Your task to perform on an android device: turn on location history Image 0: 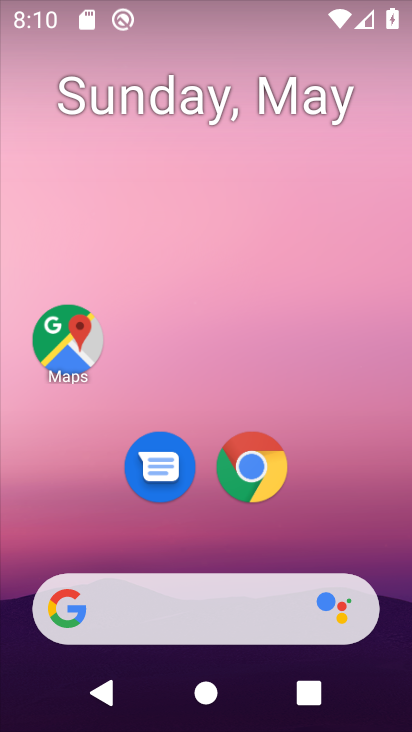
Step 0: drag from (358, 520) to (332, 47)
Your task to perform on an android device: turn on location history Image 1: 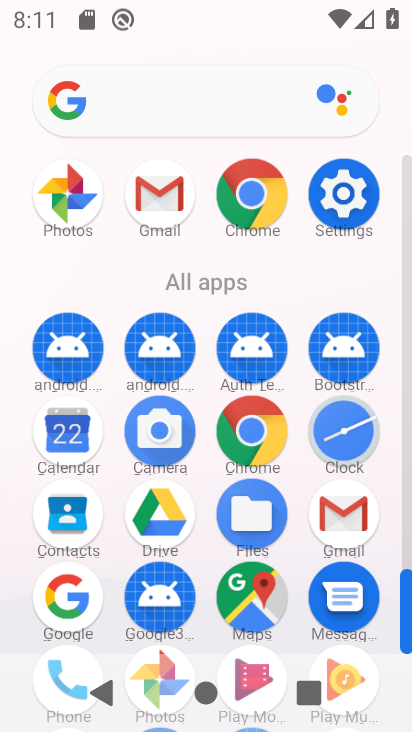
Step 1: click (353, 200)
Your task to perform on an android device: turn on location history Image 2: 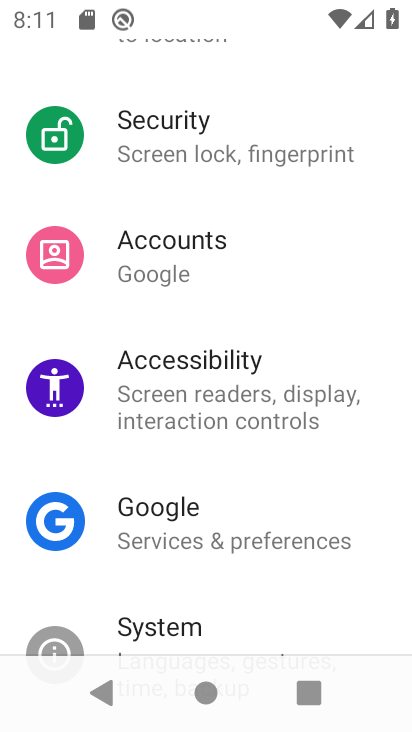
Step 2: drag from (306, 627) to (311, 155)
Your task to perform on an android device: turn on location history Image 3: 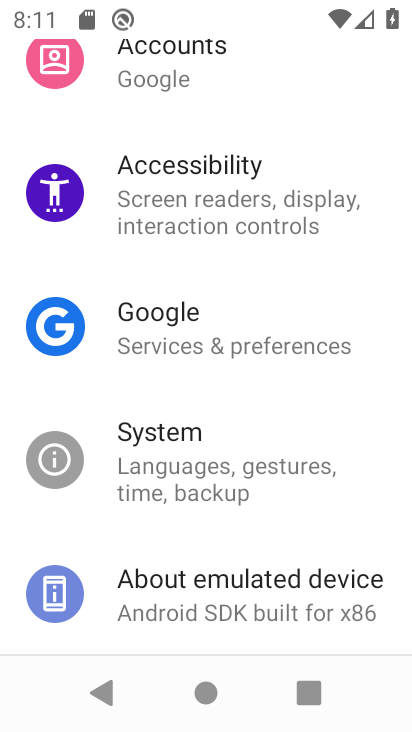
Step 3: drag from (305, 153) to (224, 607)
Your task to perform on an android device: turn on location history Image 4: 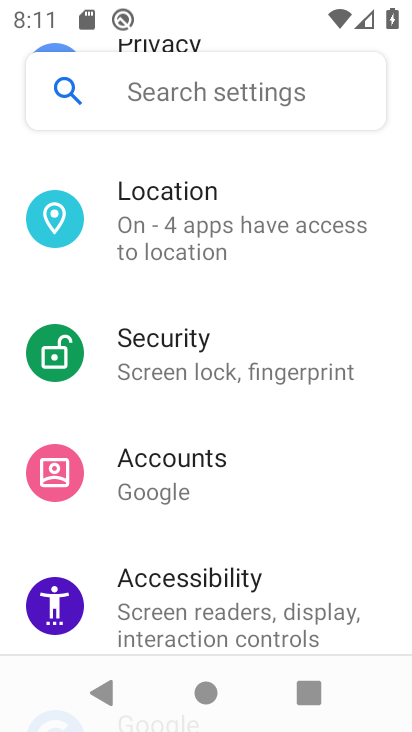
Step 4: click (183, 230)
Your task to perform on an android device: turn on location history Image 5: 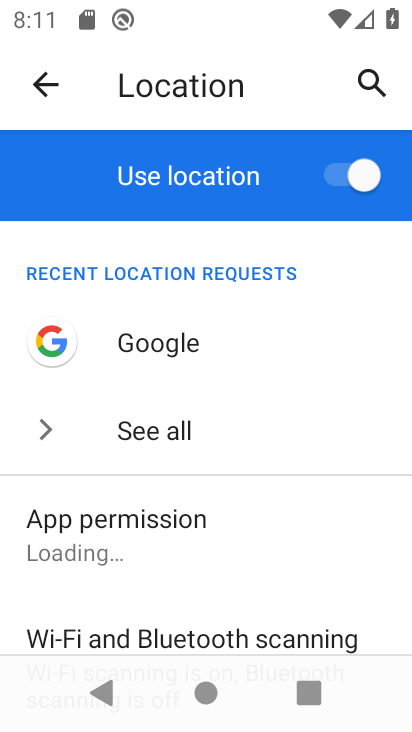
Step 5: drag from (257, 592) to (268, 229)
Your task to perform on an android device: turn on location history Image 6: 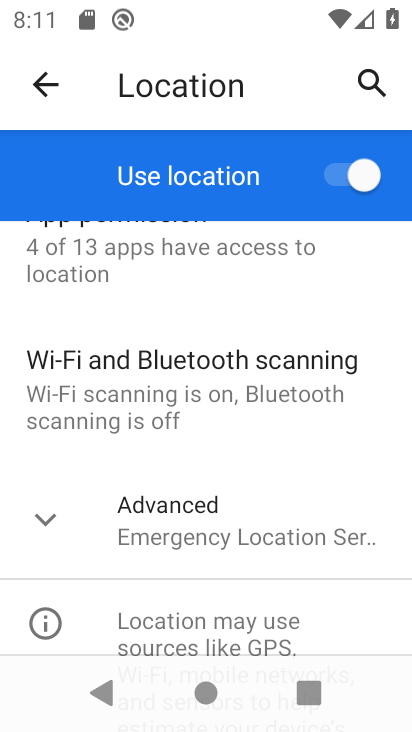
Step 6: click (235, 525)
Your task to perform on an android device: turn on location history Image 7: 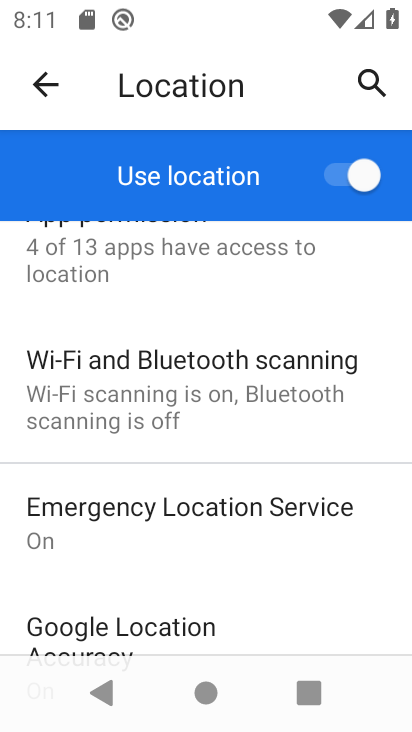
Step 7: drag from (274, 620) to (287, 260)
Your task to perform on an android device: turn on location history Image 8: 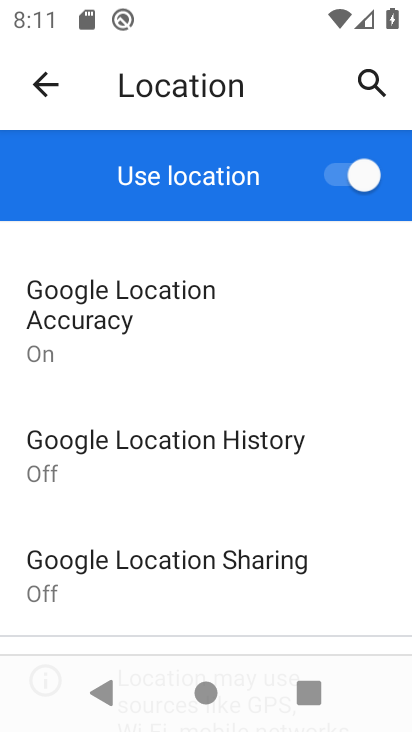
Step 8: click (226, 456)
Your task to perform on an android device: turn on location history Image 9: 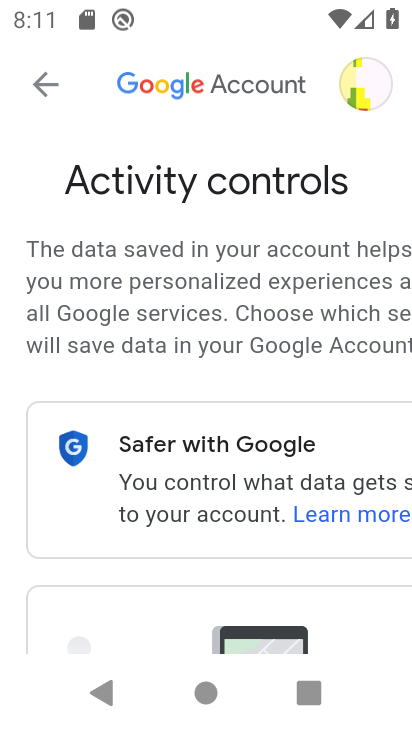
Step 9: task complete